Your task to perform on an android device: Open the Play Movies app and select the watchlist tab. Image 0: 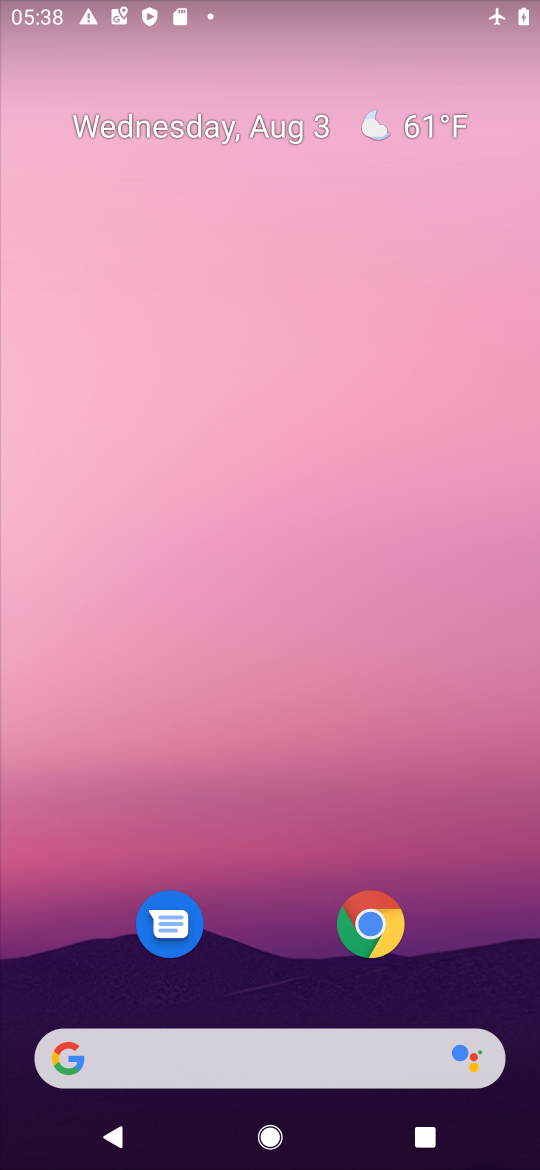
Step 0: drag from (267, 955) to (261, 218)
Your task to perform on an android device: Open the Play Movies app and select the watchlist tab. Image 1: 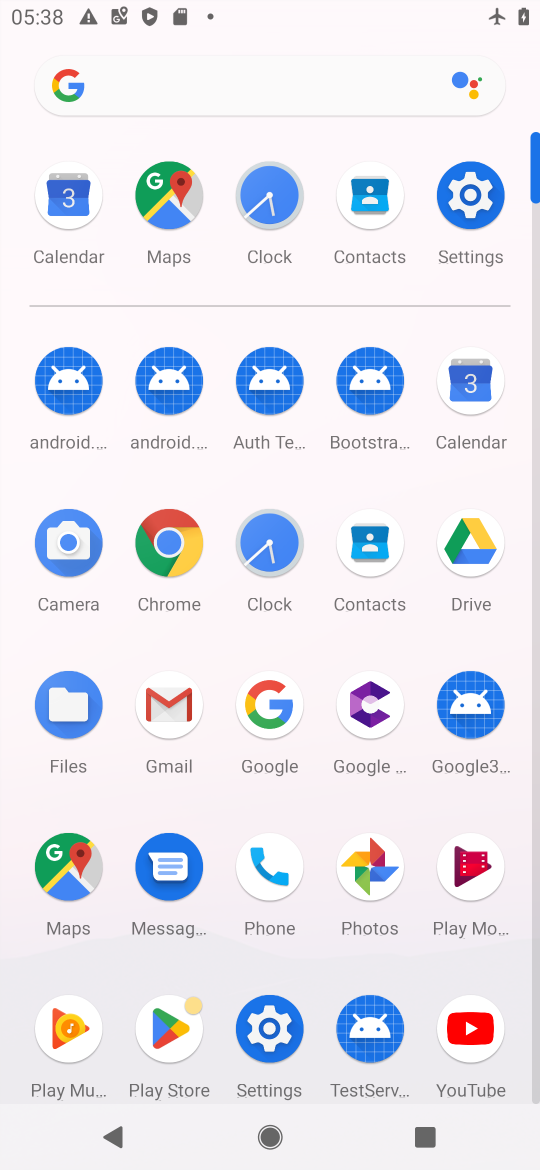
Step 1: click (458, 858)
Your task to perform on an android device: Open the Play Movies app and select the watchlist tab. Image 2: 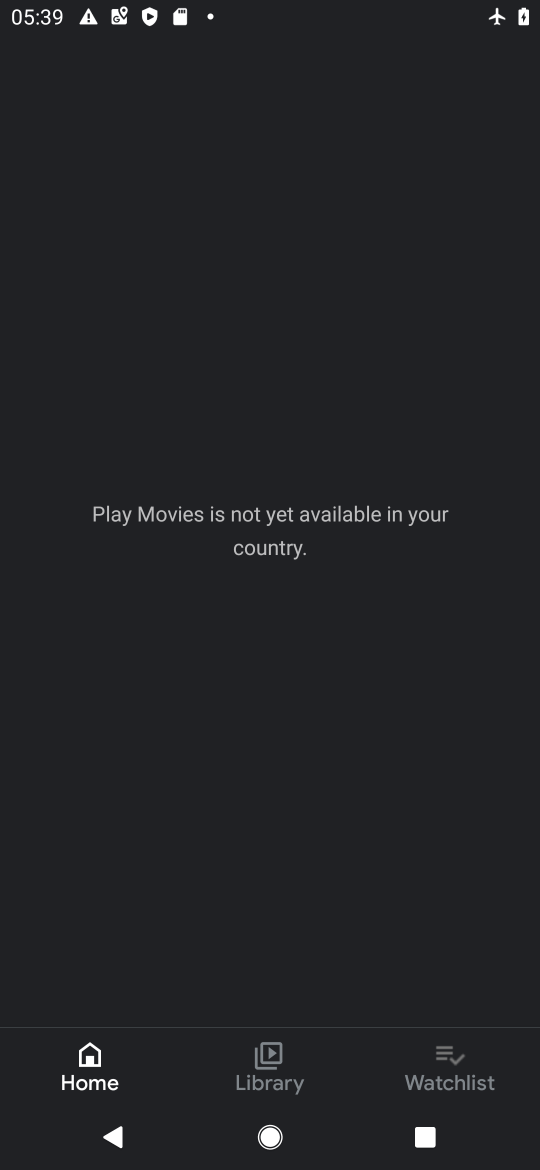
Step 2: click (480, 1040)
Your task to perform on an android device: Open the Play Movies app and select the watchlist tab. Image 3: 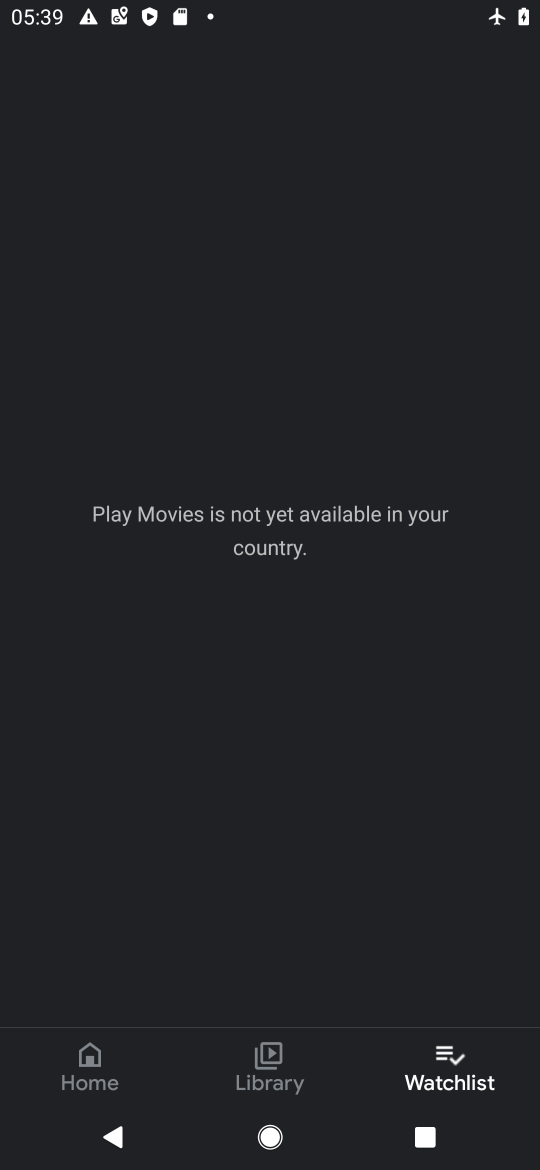
Step 3: task complete